Your task to perform on an android device: toggle priority inbox in the gmail app Image 0: 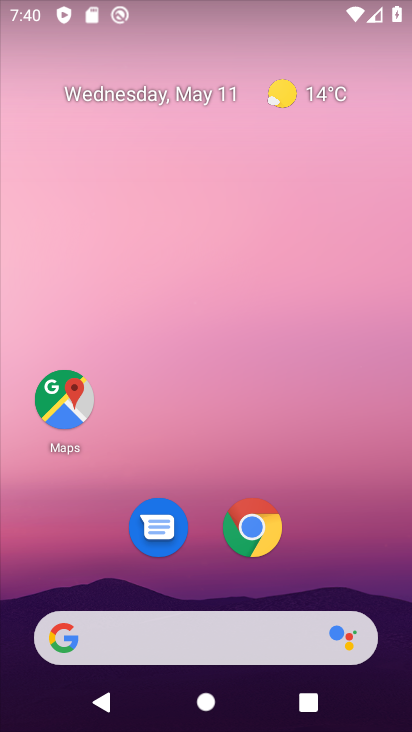
Step 0: drag from (234, 515) to (232, 60)
Your task to perform on an android device: toggle priority inbox in the gmail app Image 1: 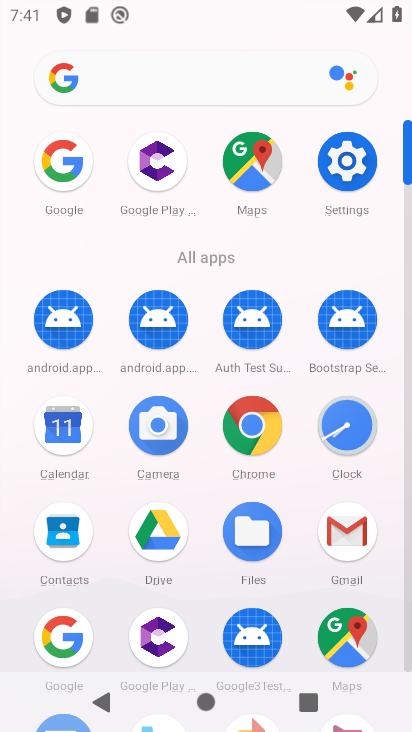
Step 1: click (334, 519)
Your task to perform on an android device: toggle priority inbox in the gmail app Image 2: 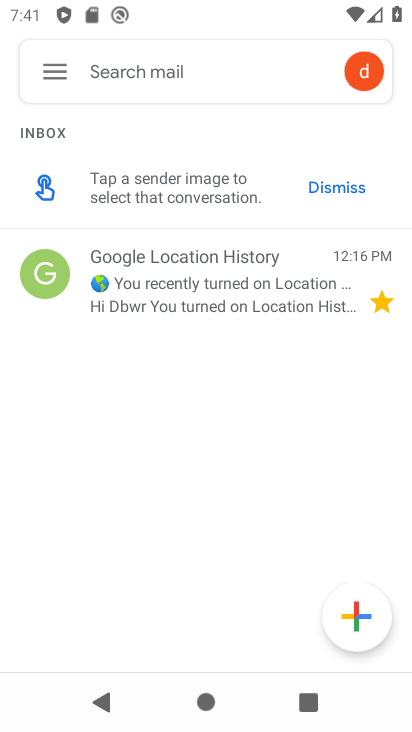
Step 2: click (38, 69)
Your task to perform on an android device: toggle priority inbox in the gmail app Image 3: 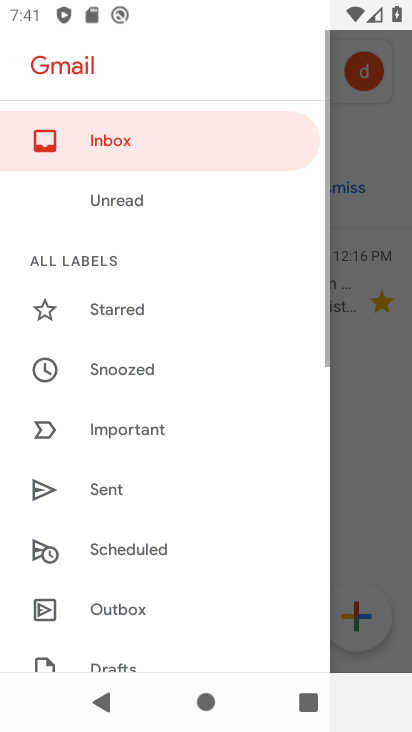
Step 3: drag from (122, 613) to (206, 201)
Your task to perform on an android device: toggle priority inbox in the gmail app Image 4: 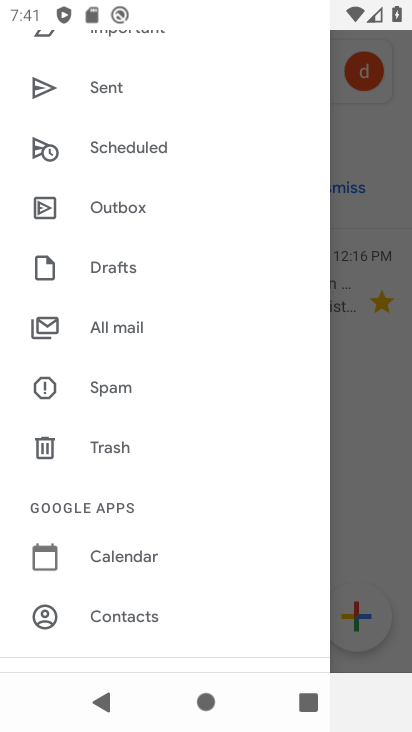
Step 4: drag from (131, 602) to (213, 265)
Your task to perform on an android device: toggle priority inbox in the gmail app Image 5: 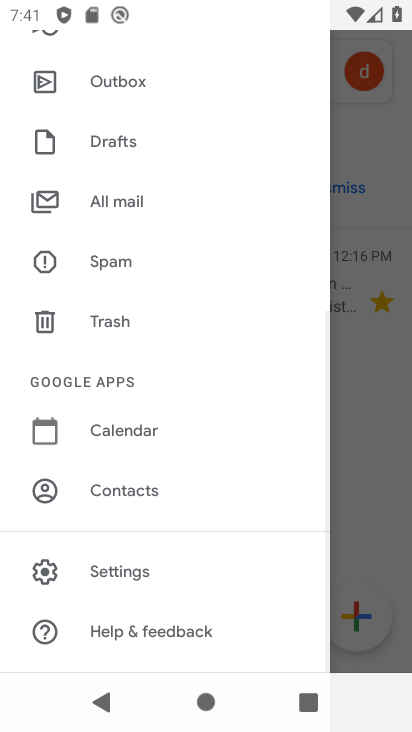
Step 5: click (139, 575)
Your task to perform on an android device: toggle priority inbox in the gmail app Image 6: 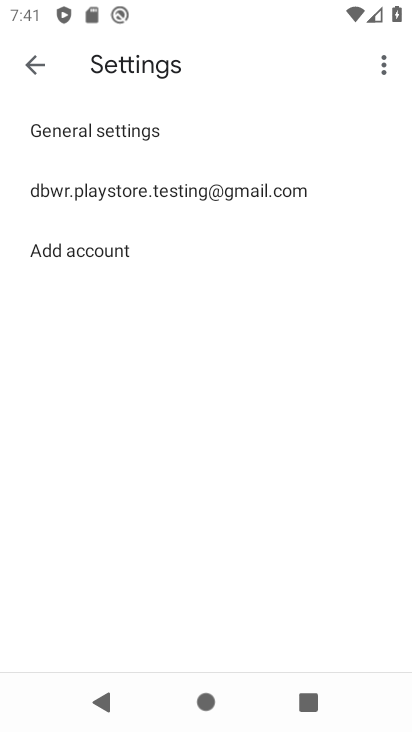
Step 6: click (247, 199)
Your task to perform on an android device: toggle priority inbox in the gmail app Image 7: 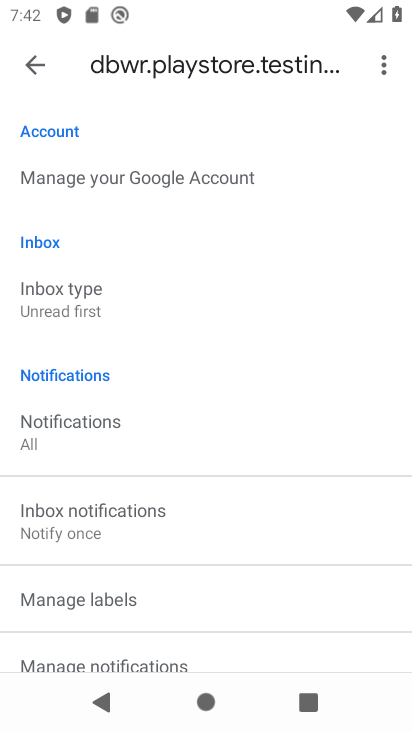
Step 7: click (110, 295)
Your task to perform on an android device: toggle priority inbox in the gmail app Image 8: 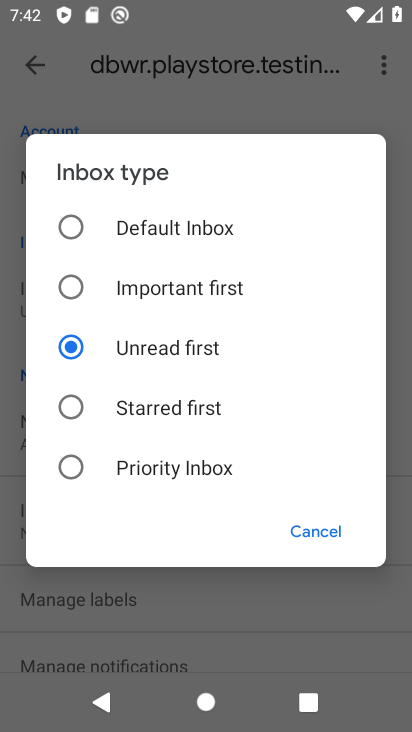
Step 8: click (88, 475)
Your task to perform on an android device: toggle priority inbox in the gmail app Image 9: 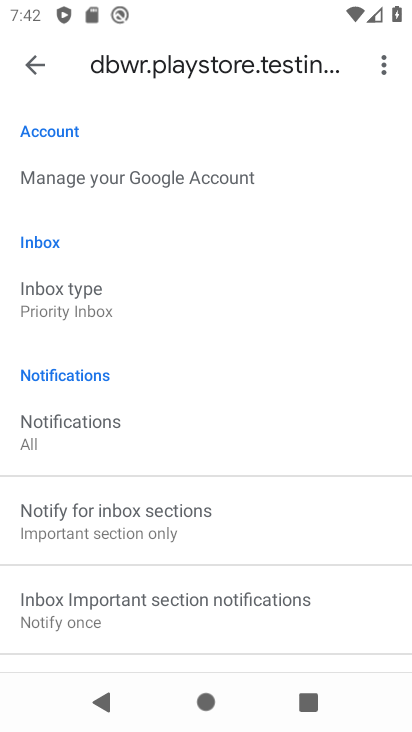
Step 9: task complete